Your task to perform on an android device: What's on my calendar tomorrow? Image 0: 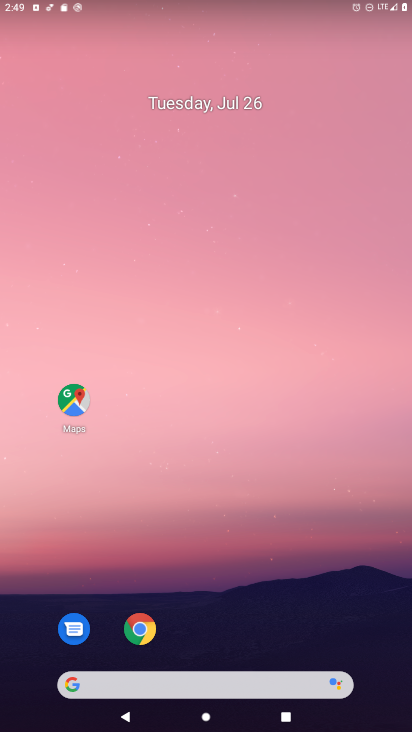
Step 0: drag from (385, 666) to (370, 174)
Your task to perform on an android device: What's on my calendar tomorrow? Image 1: 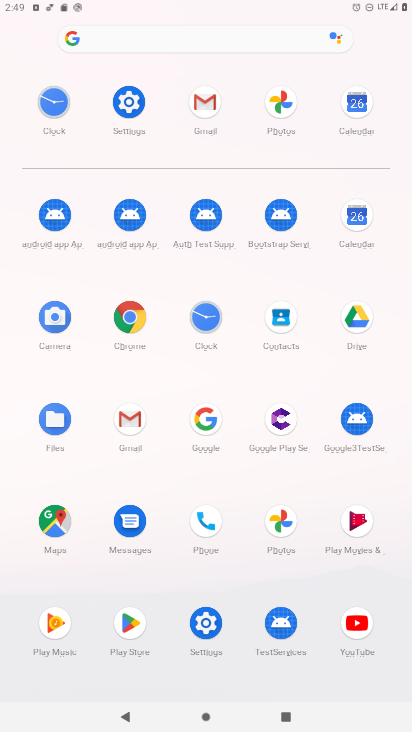
Step 1: click (357, 219)
Your task to perform on an android device: What's on my calendar tomorrow? Image 2: 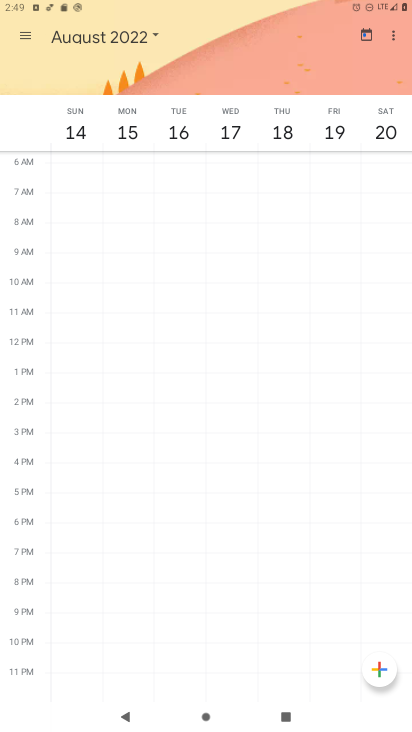
Step 2: click (32, 38)
Your task to perform on an android device: What's on my calendar tomorrow? Image 3: 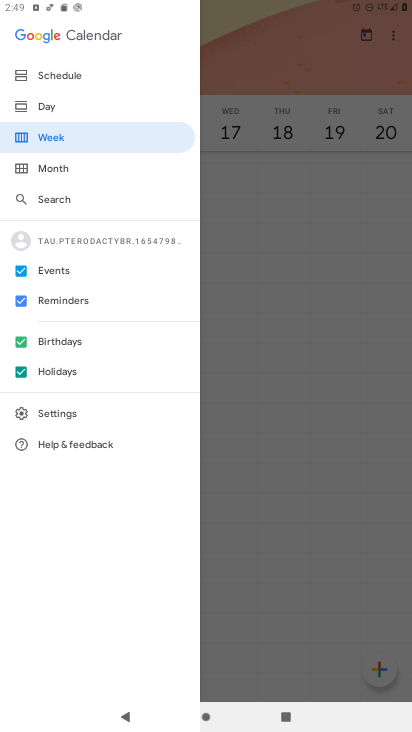
Step 3: click (46, 104)
Your task to perform on an android device: What's on my calendar tomorrow? Image 4: 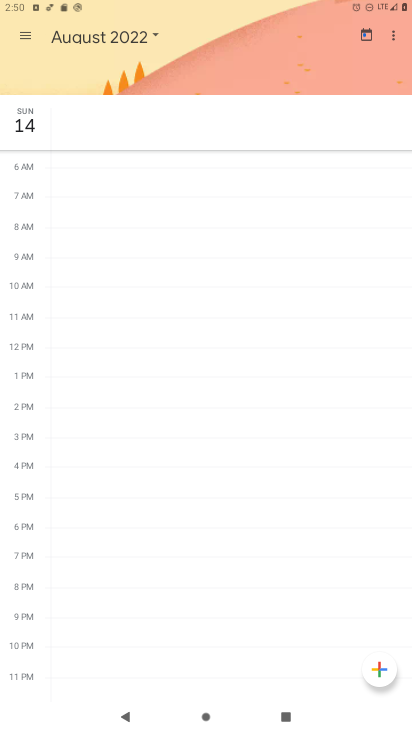
Step 4: click (153, 34)
Your task to perform on an android device: What's on my calendar tomorrow? Image 5: 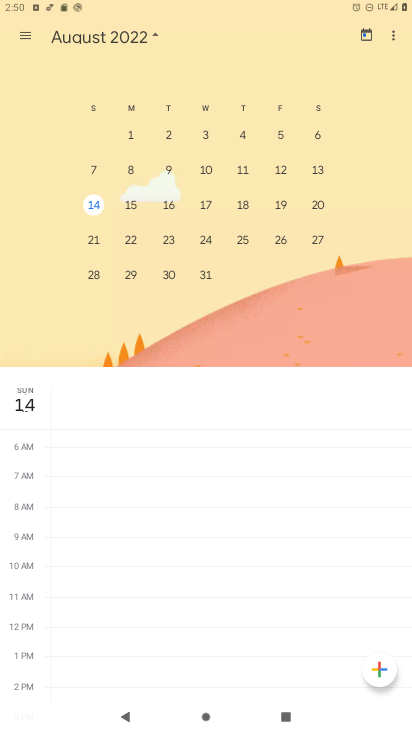
Step 5: drag from (91, 241) to (399, 221)
Your task to perform on an android device: What's on my calendar tomorrow? Image 6: 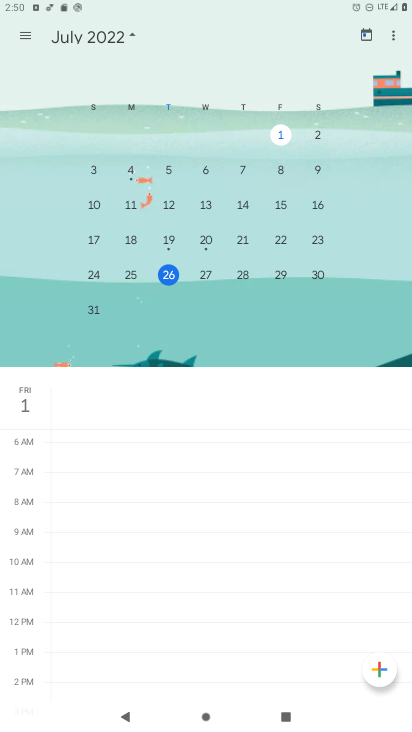
Step 6: click (206, 275)
Your task to perform on an android device: What's on my calendar tomorrow? Image 7: 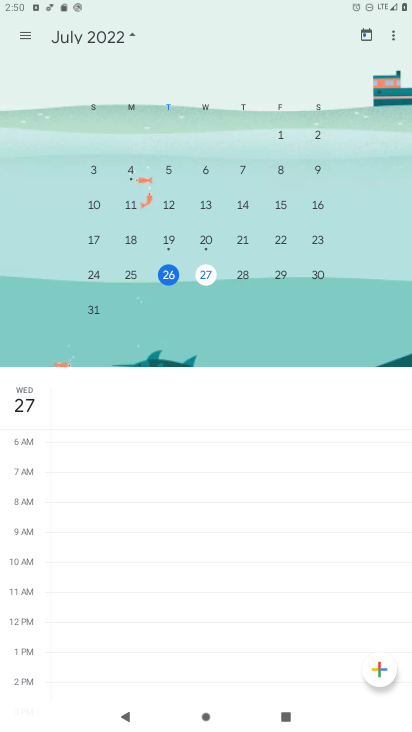
Step 7: task complete